Your task to perform on an android device: turn notification dots on Image 0: 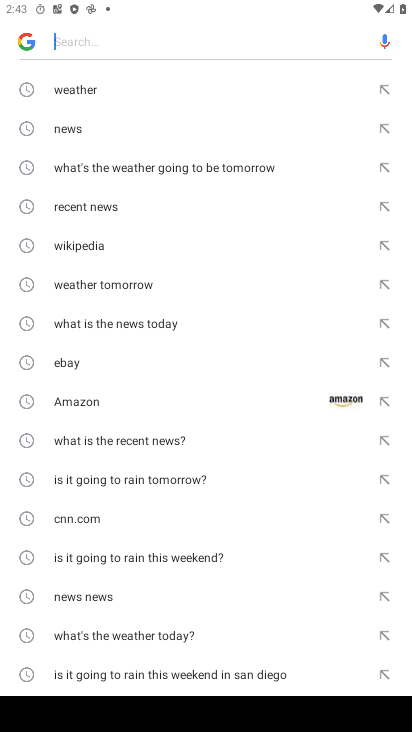
Step 0: press home button
Your task to perform on an android device: turn notification dots on Image 1: 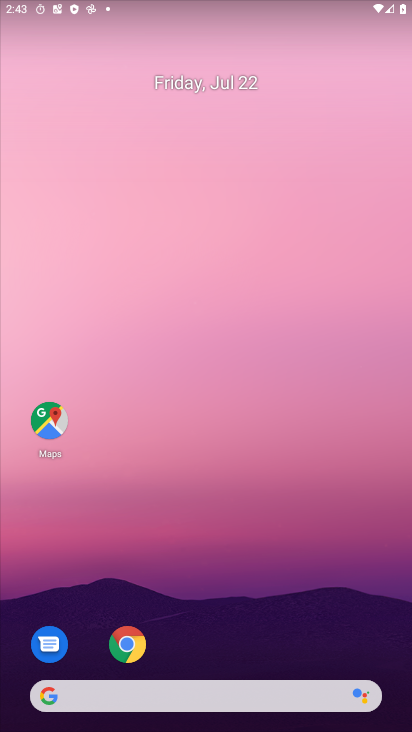
Step 1: drag from (245, 698) to (280, 160)
Your task to perform on an android device: turn notification dots on Image 2: 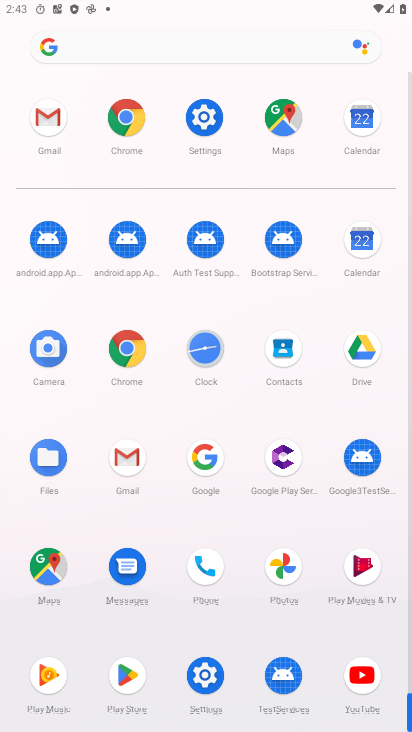
Step 2: click (215, 126)
Your task to perform on an android device: turn notification dots on Image 3: 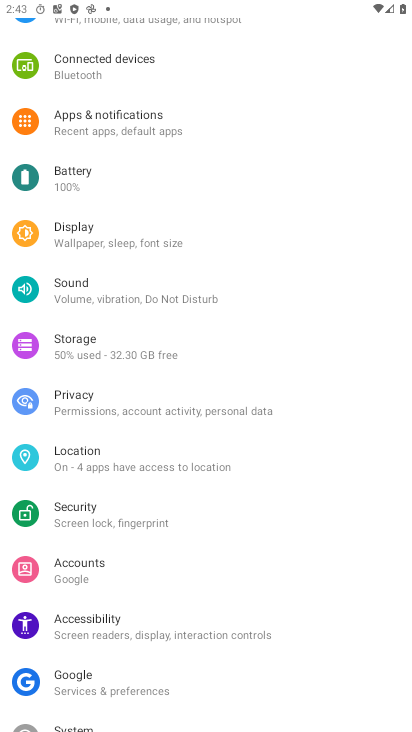
Step 3: drag from (146, 348) to (114, 630)
Your task to perform on an android device: turn notification dots on Image 4: 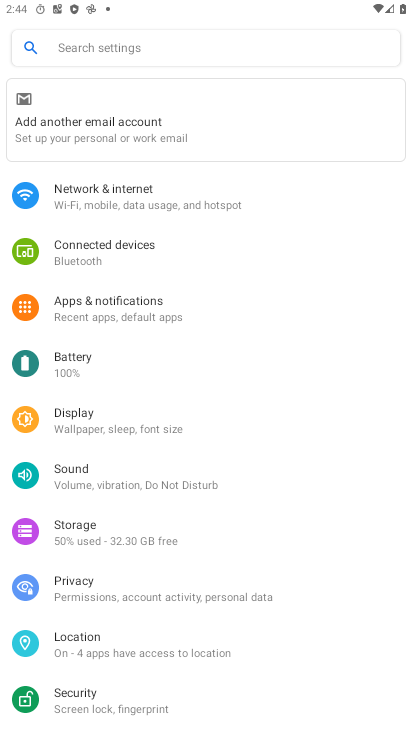
Step 4: click (130, 311)
Your task to perform on an android device: turn notification dots on Image 5: 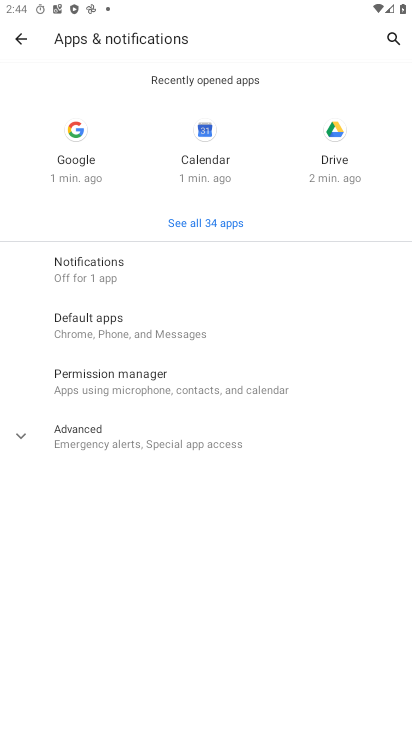
Step 5: click (125, 280)
Your task to perform on an android device: turn notification dots on Image 6: 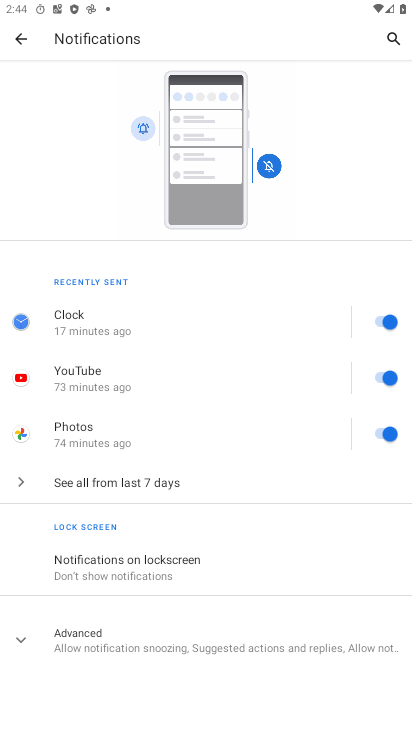
Step 6: click (170, 631)
Your task to perform on an android device: turn notification dots on Image 7: 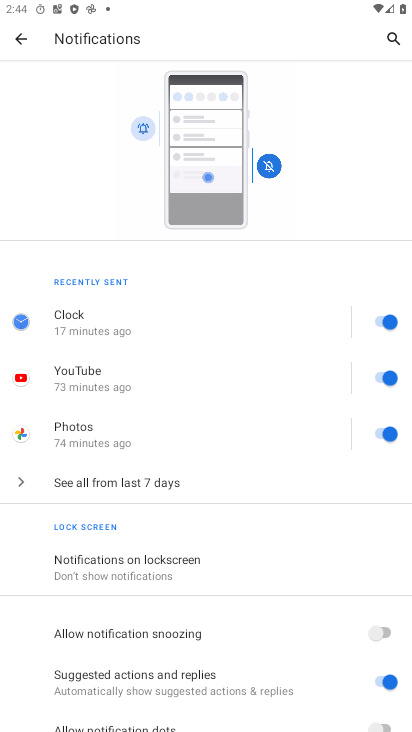
Step 7: drag from (196, 615) to (277, 119)
Your task to perform on an android device: turn notification dots on Image 8: 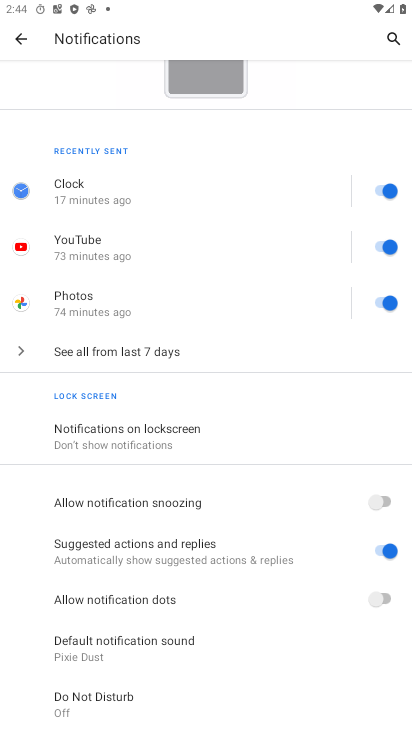
Step 8: click (139, 600)
Your task to perform on an android device: turn notification dots on Image 9: 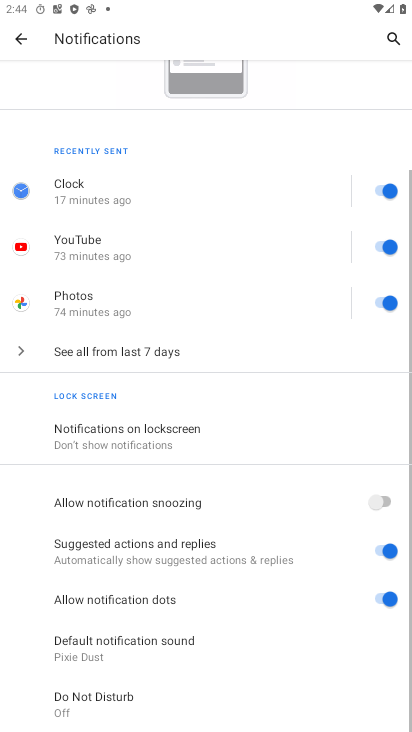
Step 9: task complete